Your task to perform on an android device: Open Wikipedia Image 0: 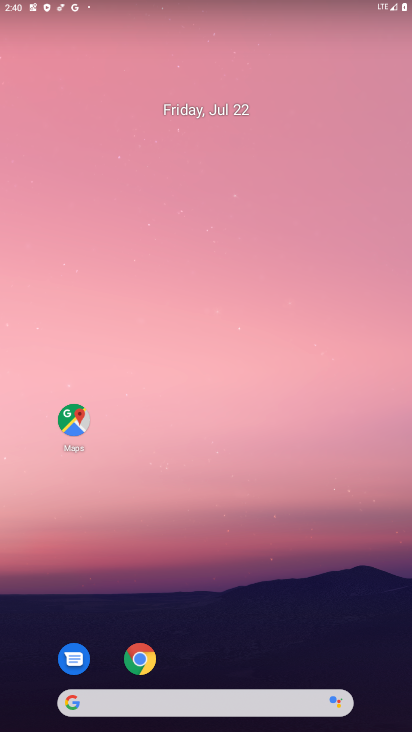
Step 0: click (131, 655)
Your task to perform on an android device: Open Wikipedia Image 1: 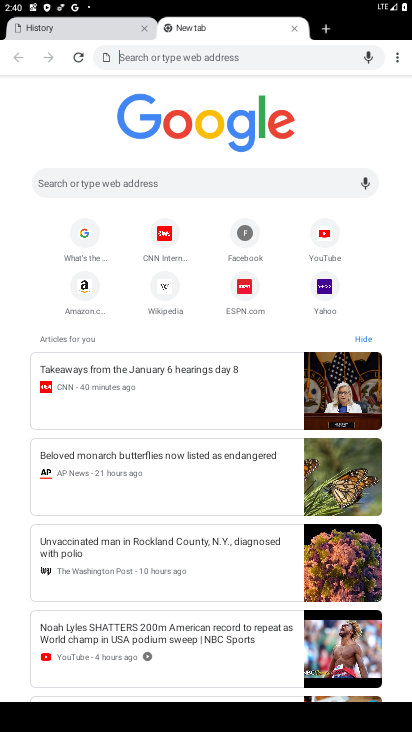
Step 1: click (174, 287)
Your task to perform on an android device: Open Wikipedia Image 2: 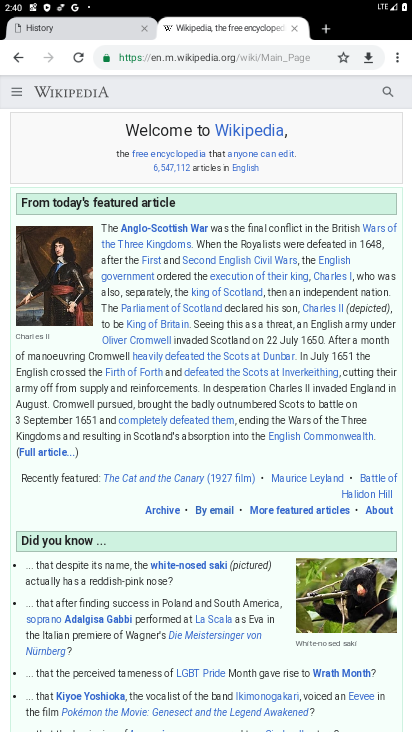
Step 2: task complete